Your task to perform on an android device: search for starred emails in the gmail app Image 0: 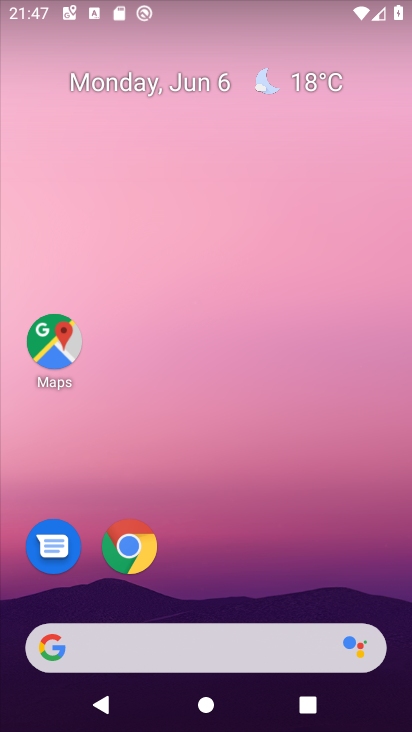
Step 0: drag from (398, 620) to (303, 74)
Your task to perform on an android device: search for starred emails in the gmail app Image 1: 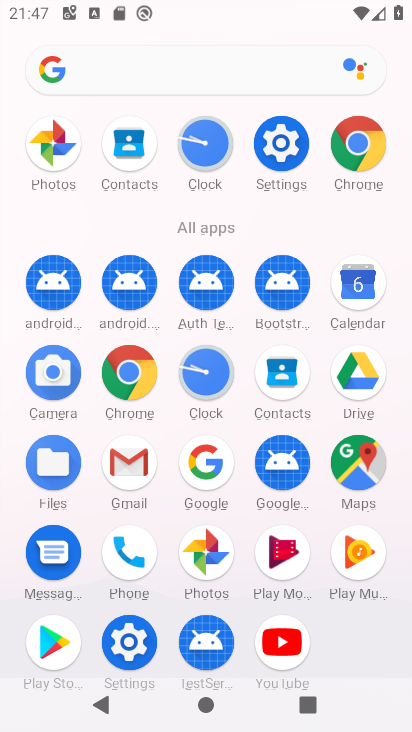
Step 1: click (129, 465)
Your task to perform on an android device: search for starred emails in the gmail app Image 2: 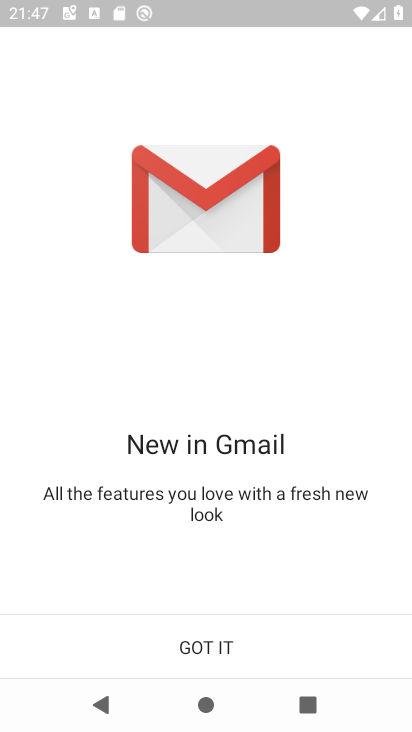
Step 2: click (212, 661)
Your task to perform on an android device: search for starred emails in the gmail app Image 3: 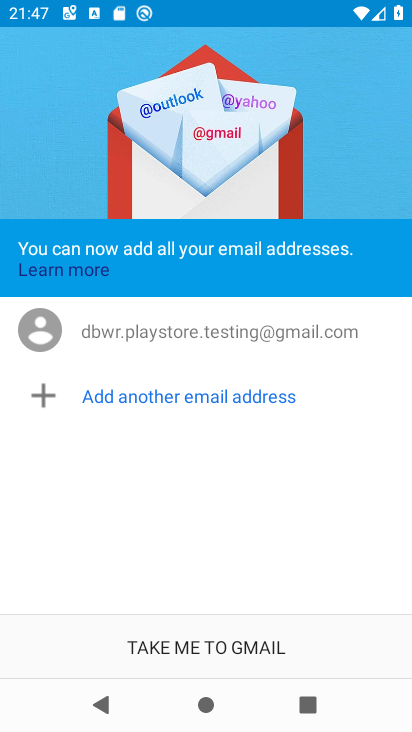
Step 3: click (212, 661)
Your task to perform on an android device: search for starred emails in the gmail app Image 4: 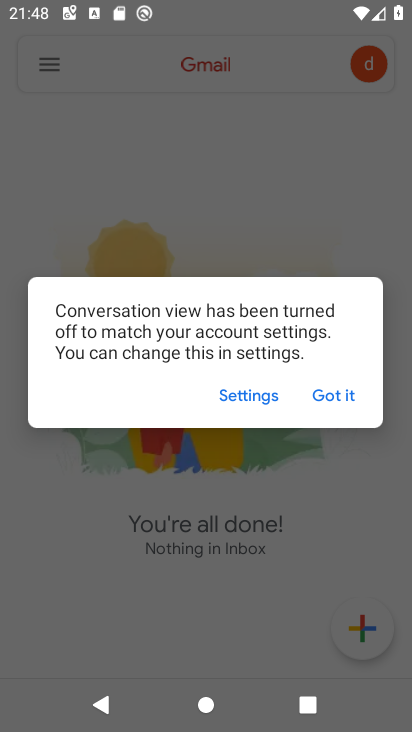
Step 4: click (327, 390)
Your task to perform on an android device: search for starred emails in the gmail app Image 5: 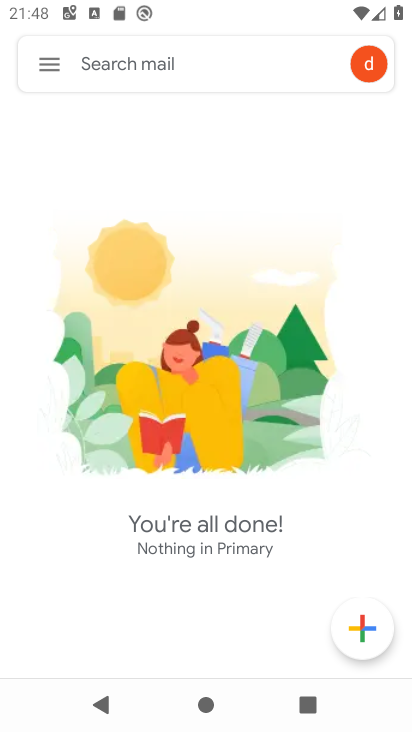
Step 5: click (50, 59)
Your task to perform on an android device: search for starred emails in the gmail app Image 6: 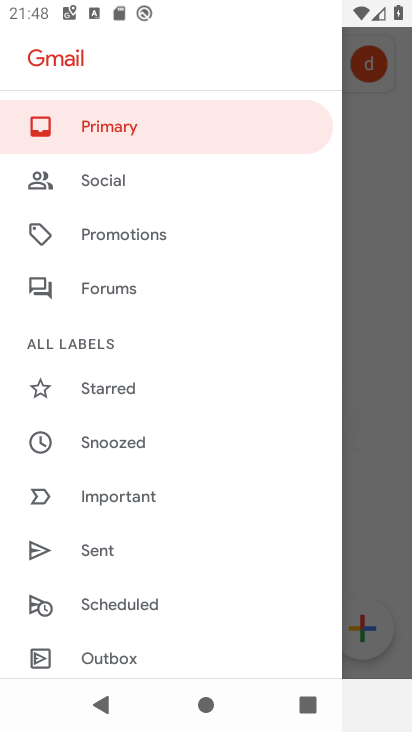
Step 6: click (92, 382)
Your task to perform on an android device: search for starred emails in the gmail app Image 7: 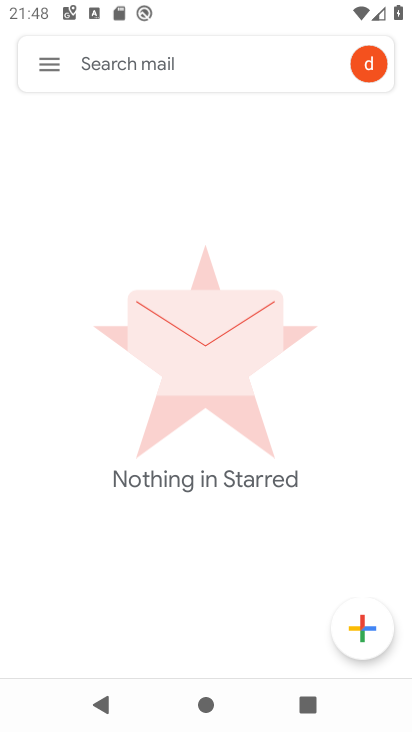
Step 7: task complete